Your task to perform on an android device: see creations saved in the google photos Image 0: 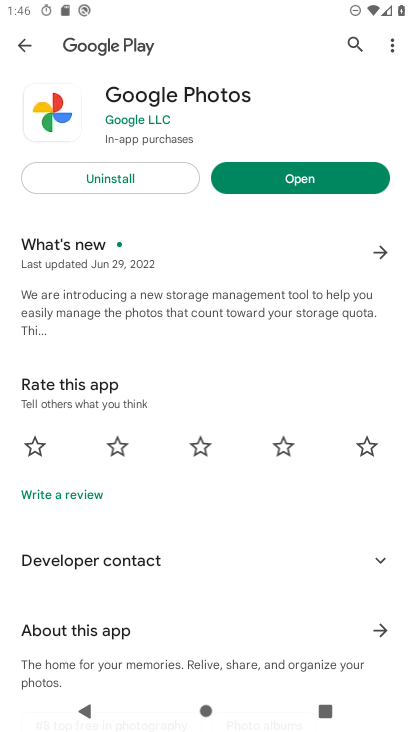
Step 0: press home button
Your task to perform on an android device: see creations saved in the google photos Image 1: 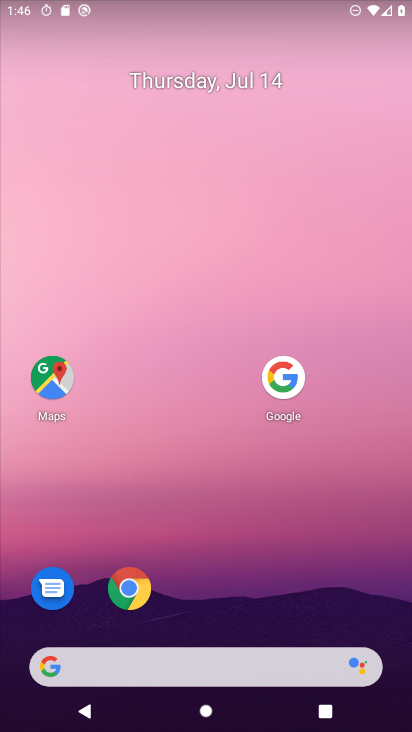
Step 1: drag from (169, 660) to (321, 59)
Your task to perform on an android device: see creations saved in the google photos Image 2: 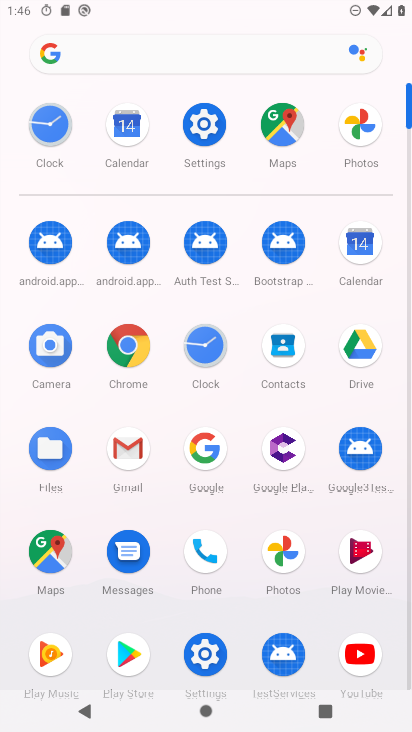
Step 2: click (289, 560)
Your task to perform on an android device: see creations saved in the google photos Image 3: 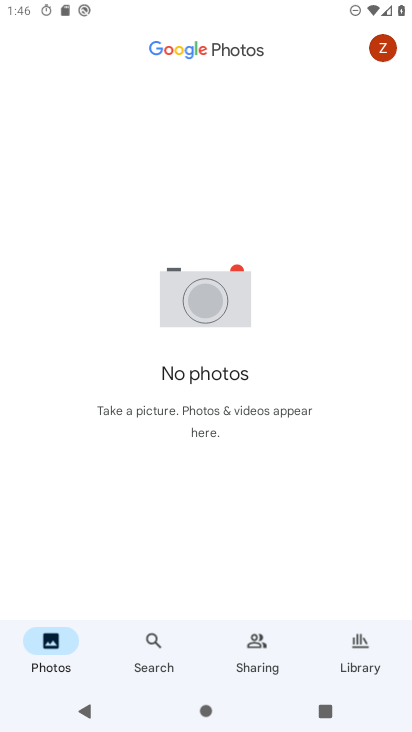
Step 3: click (147, 662)
Your task to perform on an android device: see creations saved in the google photos Image 4: 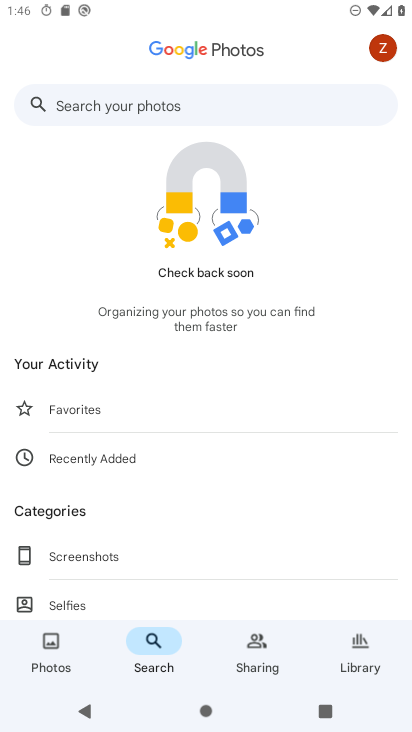
Step 4: drag from (163, 549) to (268, 87)
Your task to perform on an android device: see creations saved in the google photos Image 5: 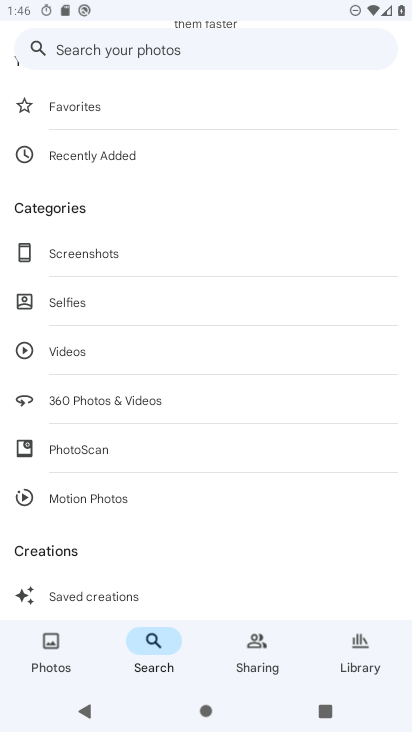
Step 5: click (83, 594)
Your task to perform on an android device: see creations saved in the google photos Image 6: 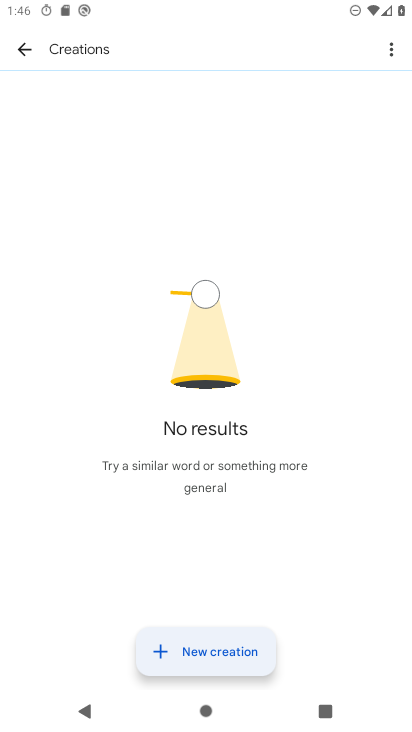
Step 6: task complete